Your task to perform on an android device: What's the weather going to be this weekend? Image 0: 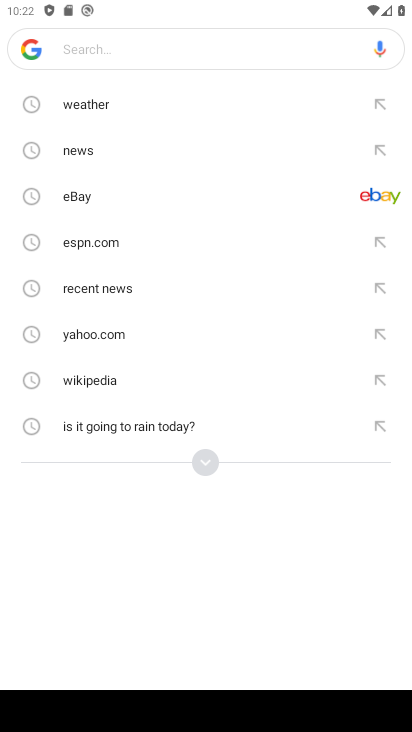
Step 0: press home button
Your task to perform on an android device: What's the weather going to be this weekend? Image 1: 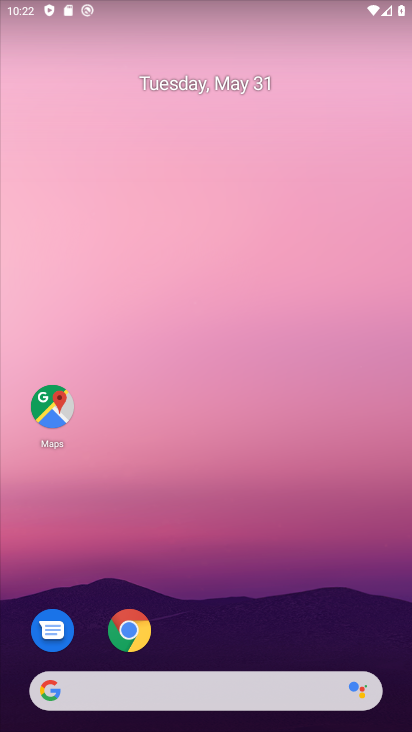
Step 1: drag from (236, 635) to (185, 150)
Your task to perform on an android device: What's the weather going to be this weekend? Image 2: 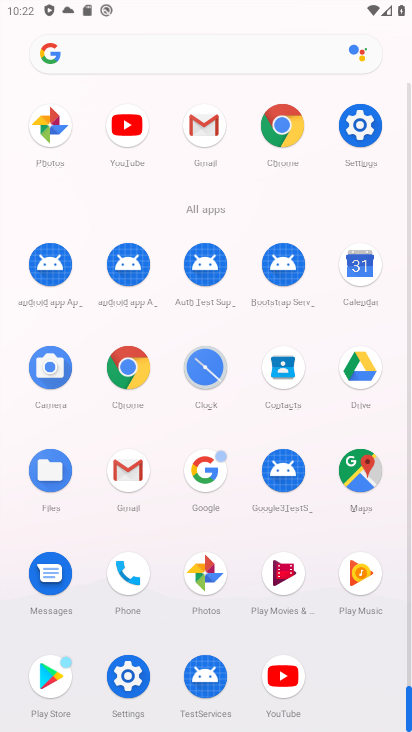
Step 2: click (205, 491)
Your task to perform on an android device: What's the weather going to be this weekend? Image 3: 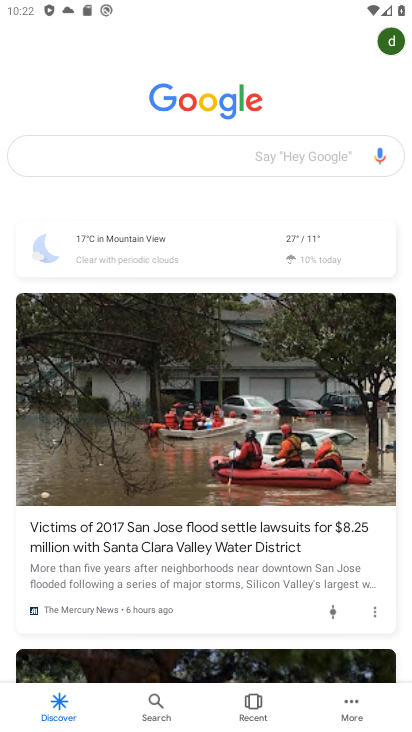
Step 3: click (110, 159)
Your task to perform on an android device: What's the weather going to be this weekend? Image 4: 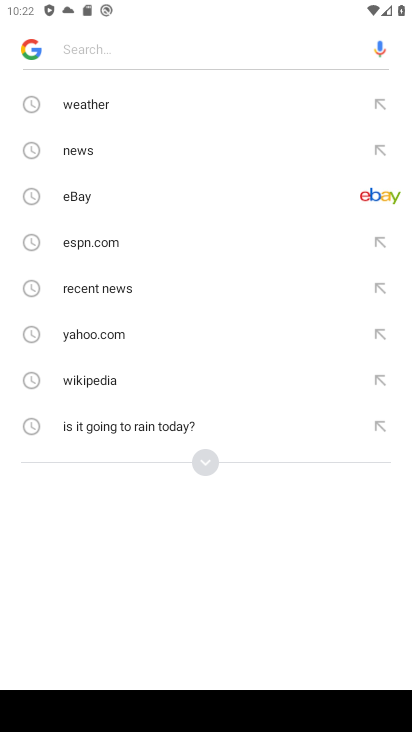
Step 4: click (84, 111)
Your task to perform on an android device: What's the weather going to be this weekend? Image 5: 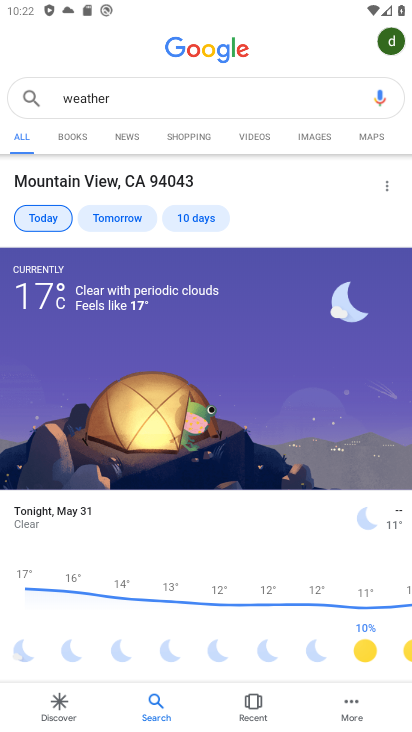
Step 5: click (209, 219)
Your task to perform on an android device: What's the weather going to be this weekend? Image 6: 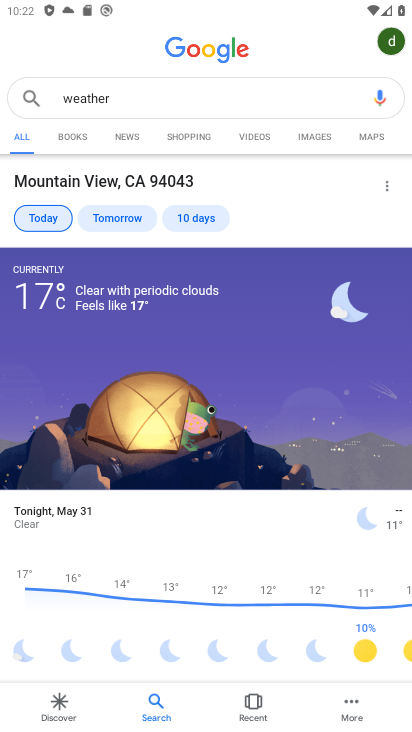
Step 6: click (193, 228)
Your task to perform on an android device: What's the weather going to be this weekend? Image 7: 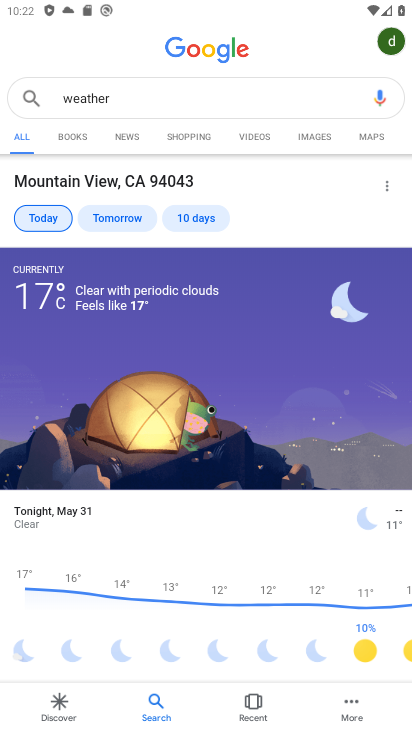
Step 7: click (208, 220)
Your task to perform on an android device: What's the weather going to be this weekend? Image 8: 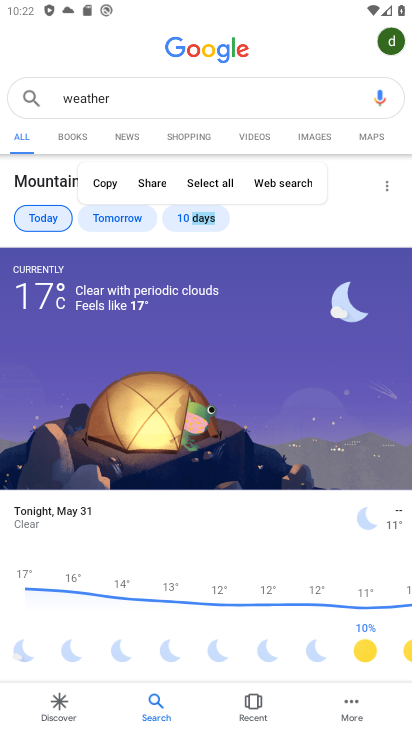
Step 8: click (208, 220)
Your task to perform on an android device: What's the weather going to be this weekend? Image 9: 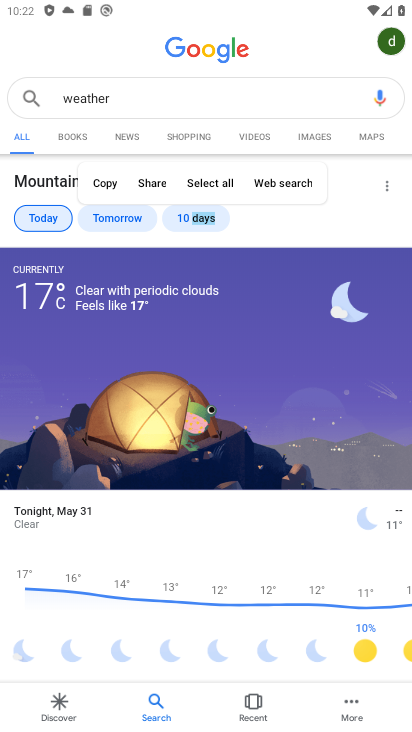
Step 9: click (208, 220)
Your task to perform on an android device: What's the weather going to be this weekend? Image 10: 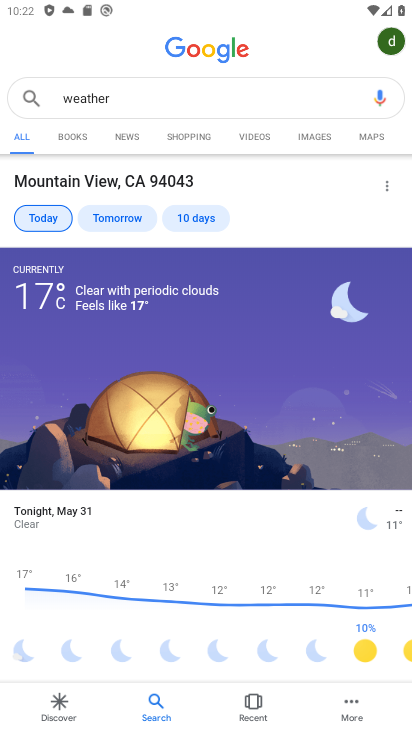
Step 10: click (208, 220)
Your task to perform on an android device: What's the weather going to be this weekend? Image 11: 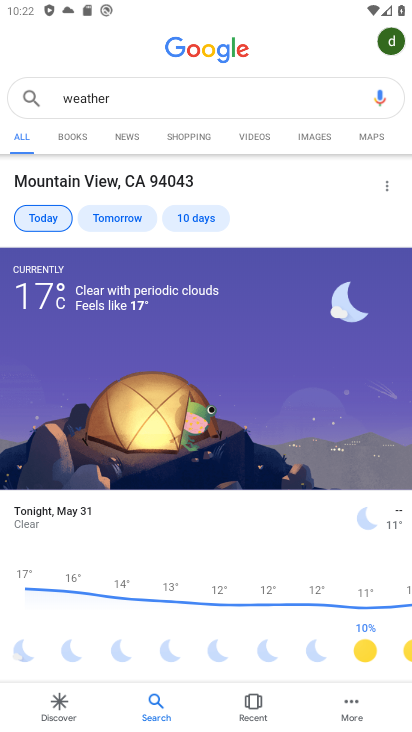
Step 11: task complete